Your task to perform on an android device: What's on my calendar today? Image 0: 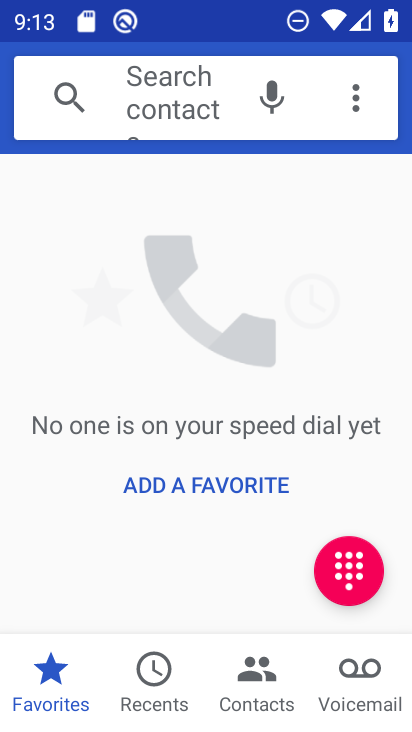
Step 0: press home button
Your task to perform on an android device: What's on my calendar today? Image 1: 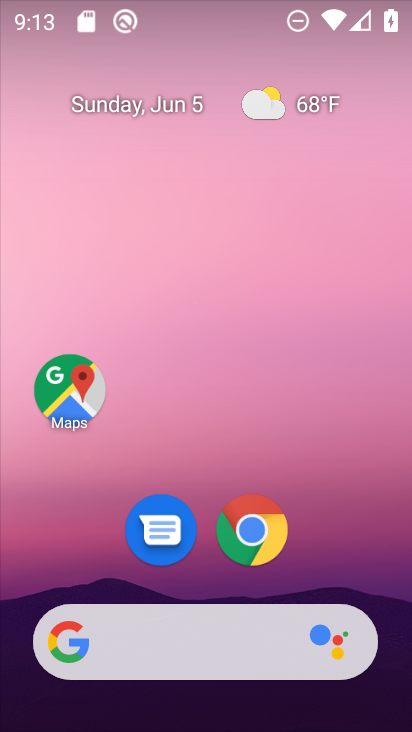
Step 1: drag from (401, 661) to (320, 92)
Your task to perform on an android device: What's on my calendar today? Image 2: 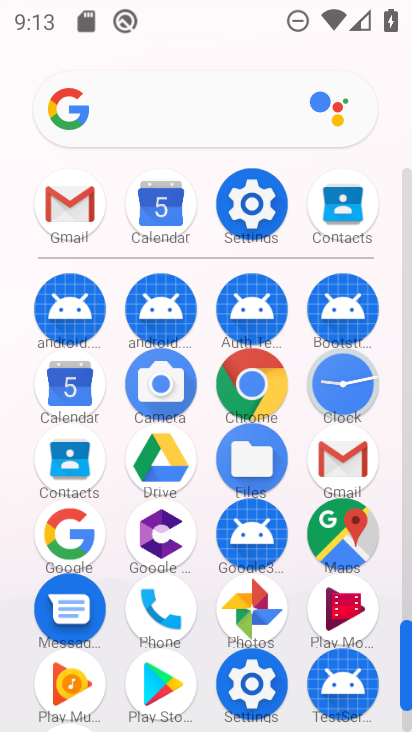
Step 2: click (65, 381)
Your task to perform on an android device: What's on my calendar today? Image 3: 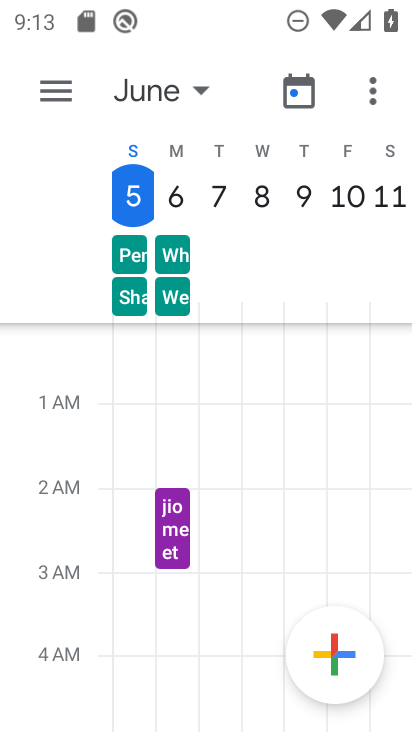
Step 3: click (54, 88)
Your task to perform on an android device: What's on my calendar today? Image 4: 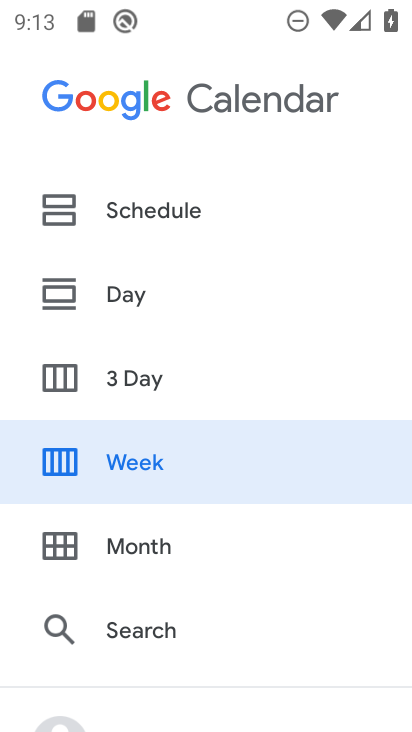
Step 4: click (126, 277)
Your task to perform on an android device: What's on my calendar today? Image 5: 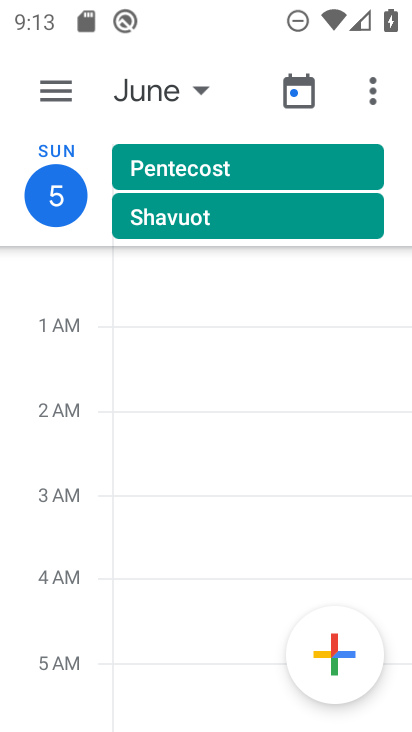
Step 5: task complete